Your task to perform on an android device: Open Google Chrome Image 0: 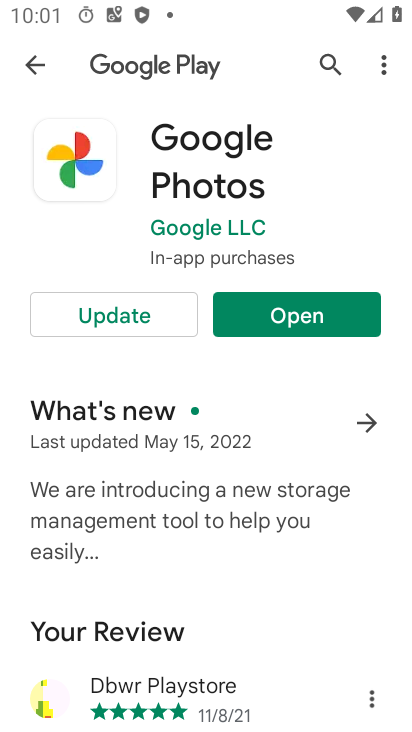
Step 0: press home button
Your task to perform on an android device: Open Google Chrome Image 1: 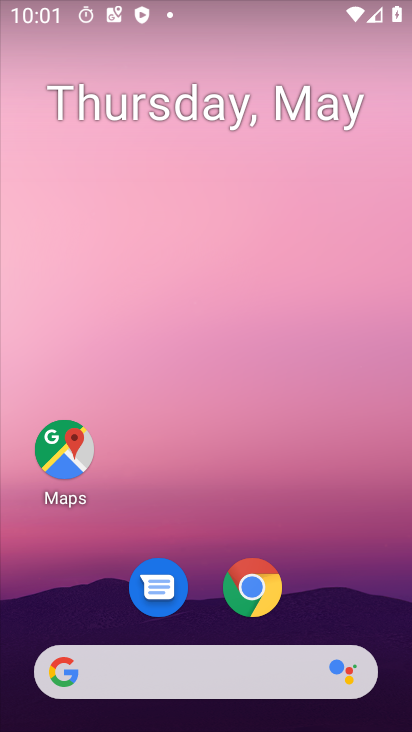
Step 1: click (256, 587)
Your task to perform on an android device: Open Google Chrome Image 2: 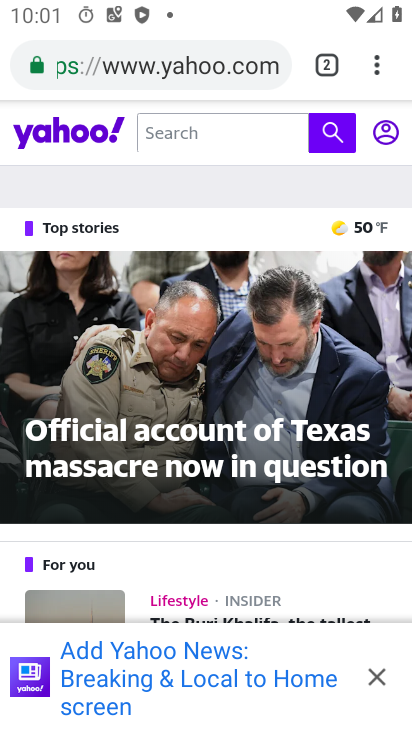
Step 2: task complete